Your task to perform on an android device: turn off wifi Image 0: 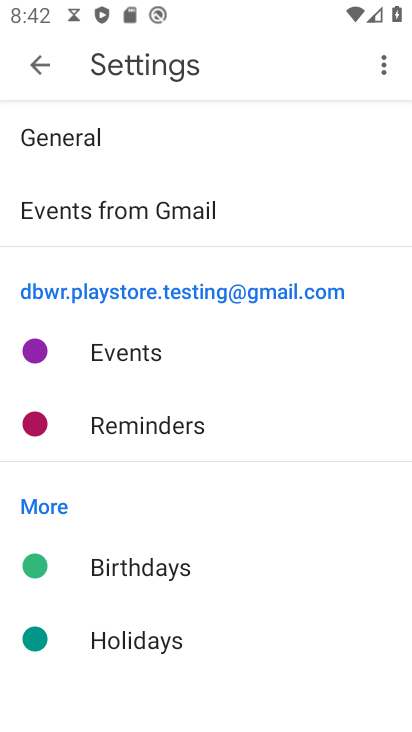
Step 0: press back button
Your task to perform on an android device: turn off wifi Image 1: 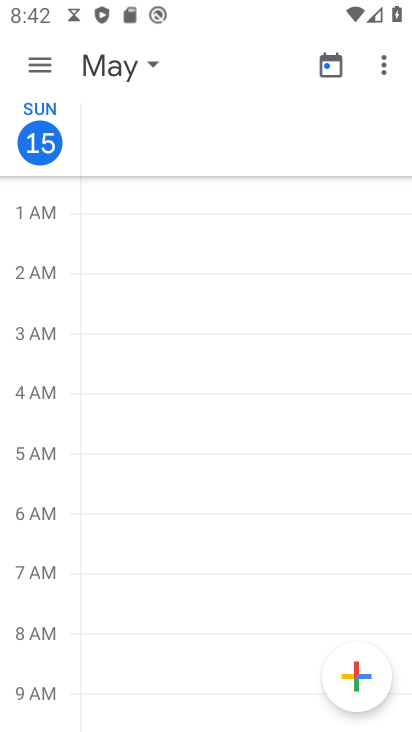
Step 1: press home button
Your task to perform on an android device: turn off wifi Image 2: 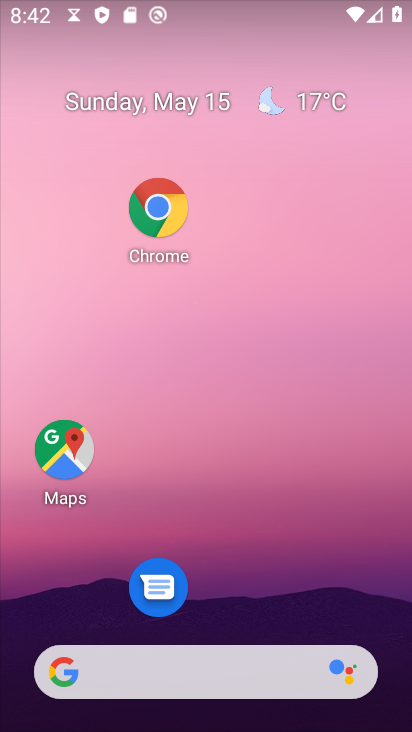
Step 2: drag from (299, 664) to (138, 186)
Your task to perform on an android device: turn off wifi Image 3: 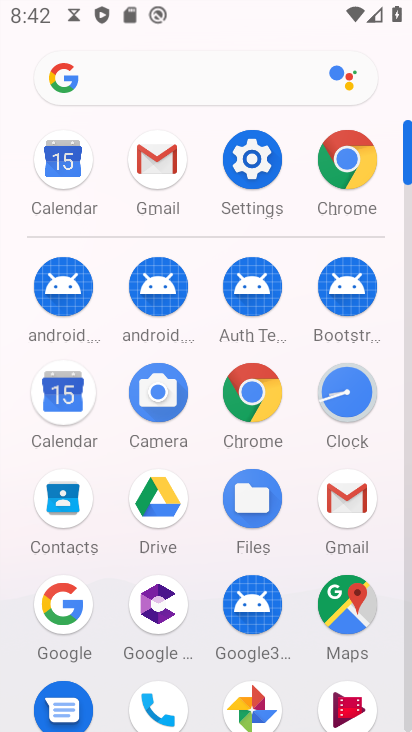
Step 3: click (238, 168)
Your task to perform on an android device: turn off wifi Image 4: 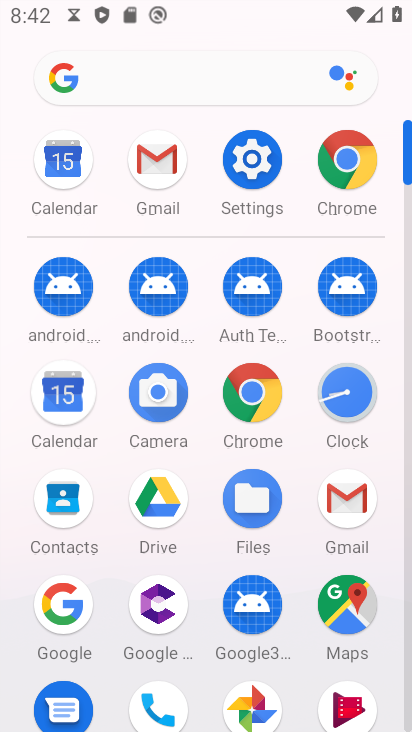
Step 4: click (241, 166)
Your task to perform on an android device: turn off wifi Image 5: 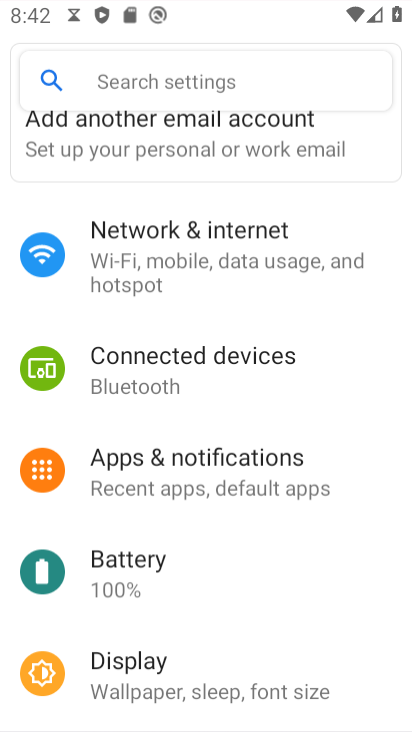
Step 5: click (251, 155)
Your task to perform on an android device: turn off wifi Image 6: 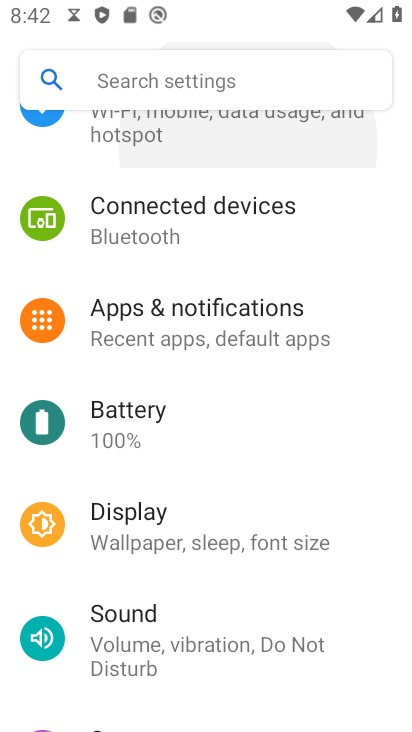
Step 6: click (251, 155)
Your task to perform on an android device: turn off wifi Image 7: 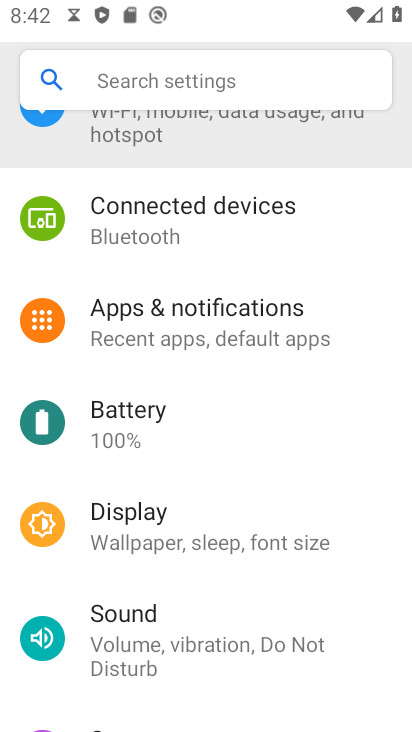
Step 7: click (251, 155)
Your task to perform on an android device: turn off wifi Image 8: 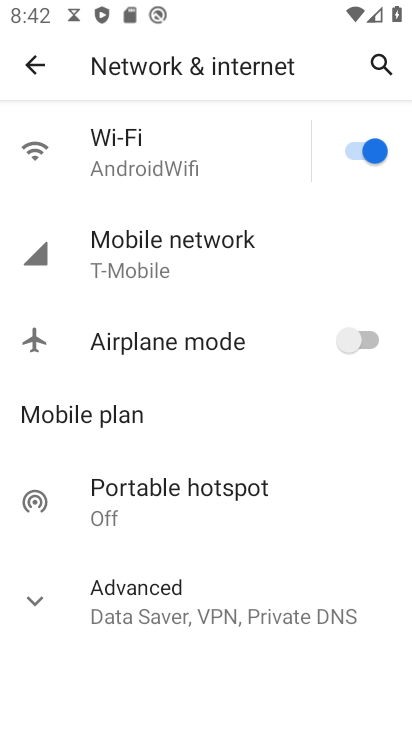
Step 8: click (378, 151)
Your task to perform on an android device: turn off wifi Image 9: 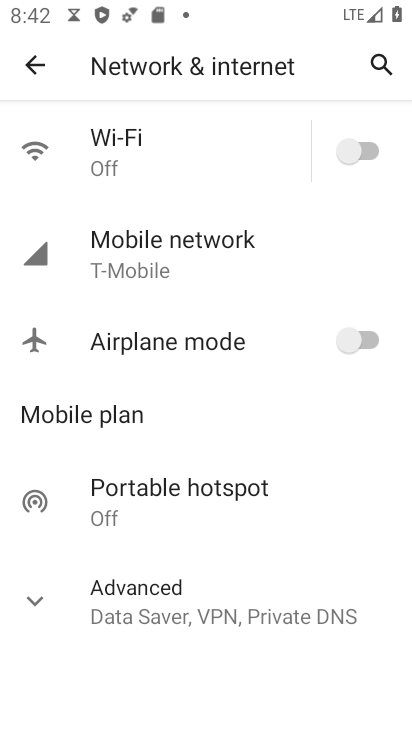
Step 9: task complete